Your task to perform on an android device: What's on my calendar today? Image 0: 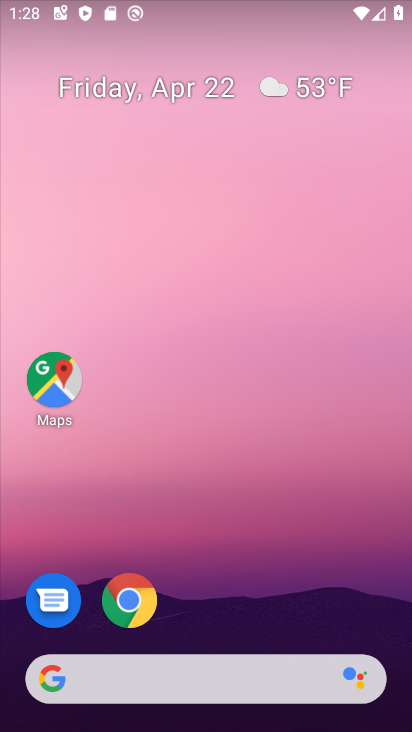
Step 0: drag from (227, 722) to (229, 145)
Your task to perform on an android device: What's on my calendar today? Image 1: 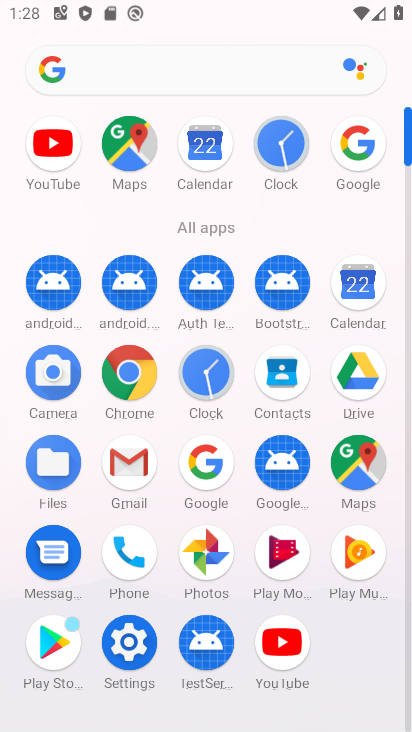
Step 1: click (361, 284)
Your task to perform on an android device: What's on my calendar today? Image 2: 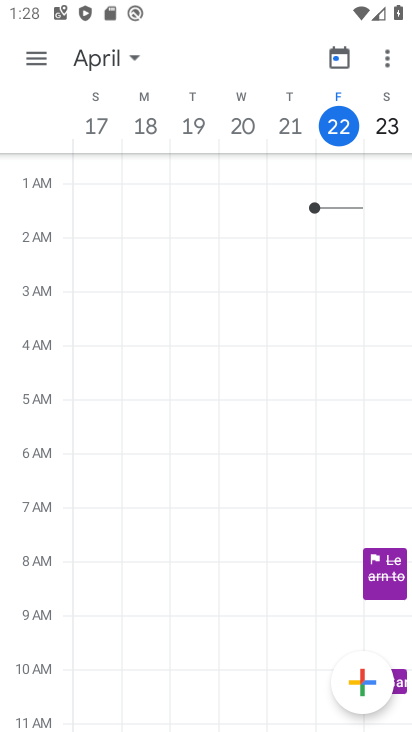
Step 2: click (336, 123)
Your task to perform on an android device: What's on my calendar today? Image 3: 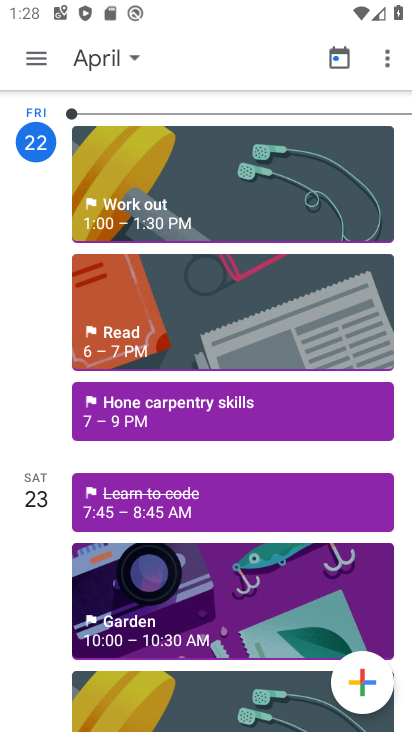
Step 3: task complete